Your task to perform on an android device: Search for vegetarian restaurants on Maps Image 0: 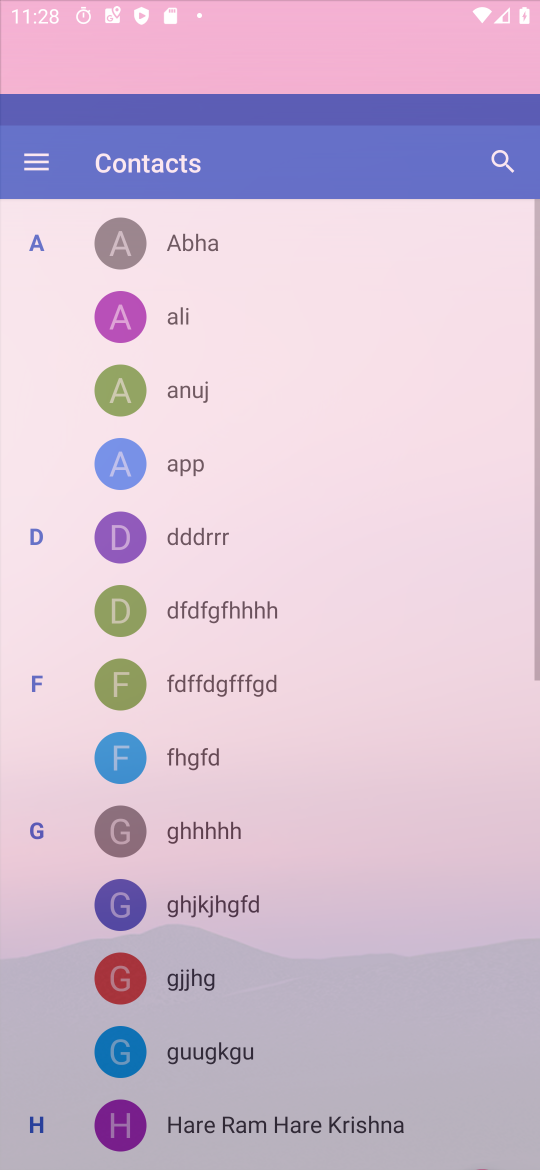
Step 0: click (20, 58)
Your task to perform on an android device: Search for vegetarian restaurants on Maps Image 1: 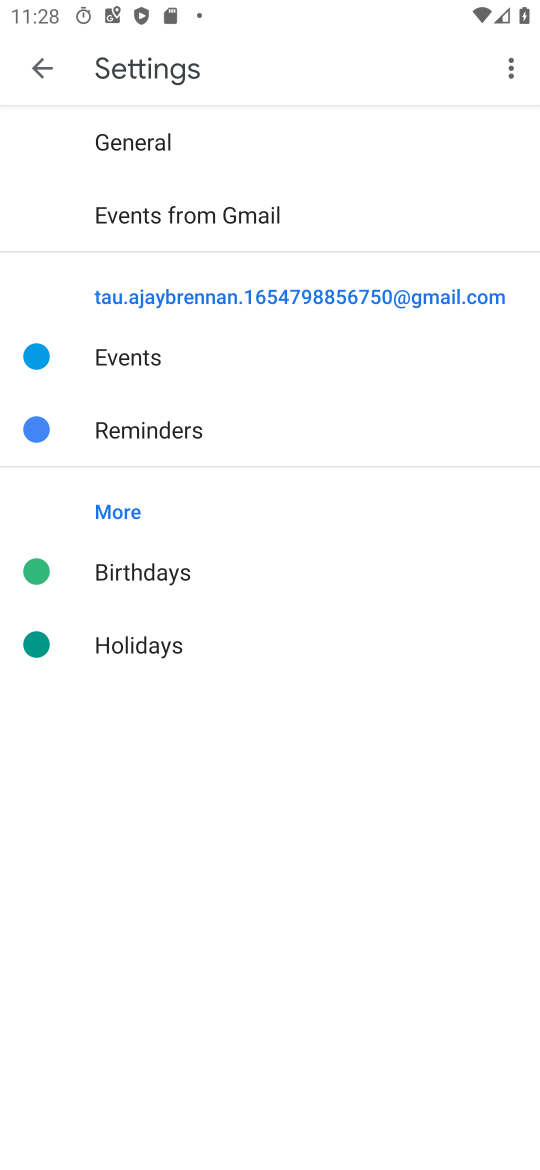
Step 1: press back button
Your task to perform on an android device: Search for vegetarian restaurants on Maps Image 2: 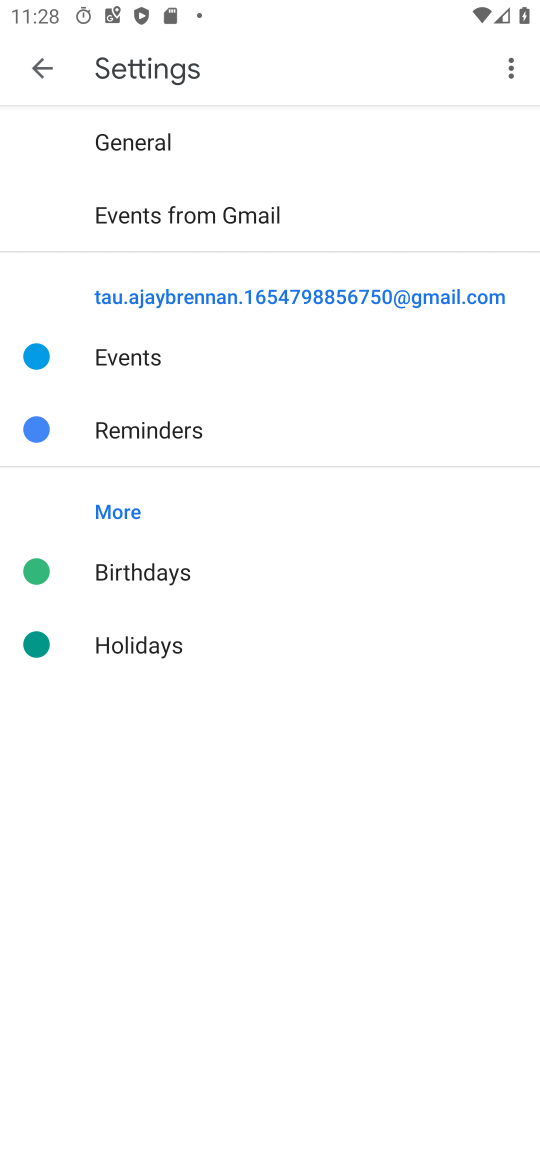
Step 2: press back button
Your task to perform on an android device: Search for vegetarian restaurants on Maps Image 3: 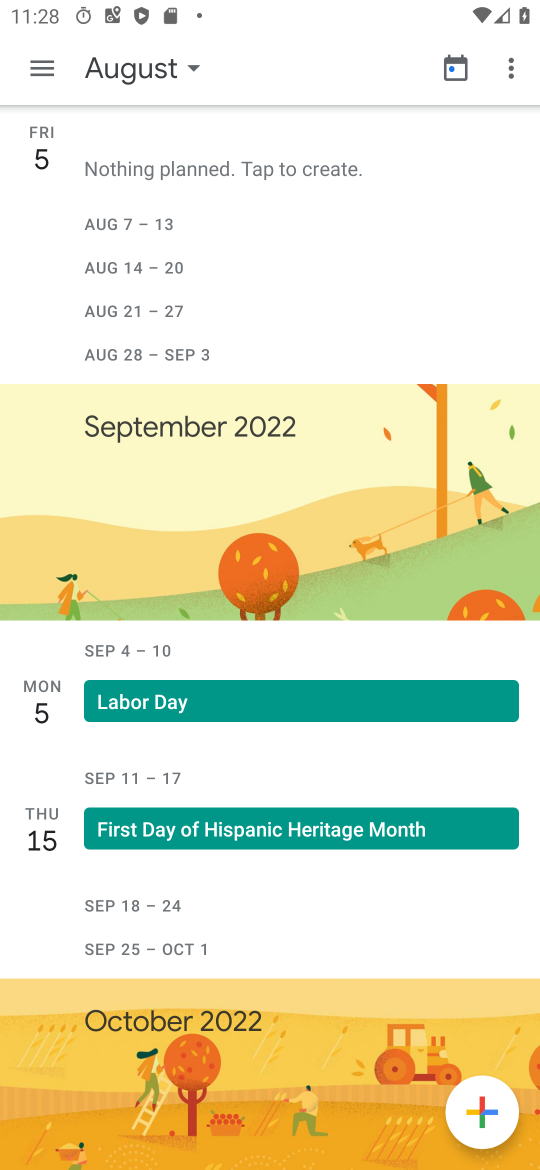
Step 3: press home button
Your task to perform on an android device: Search for vegetarian restaurants on Maps Image 4: 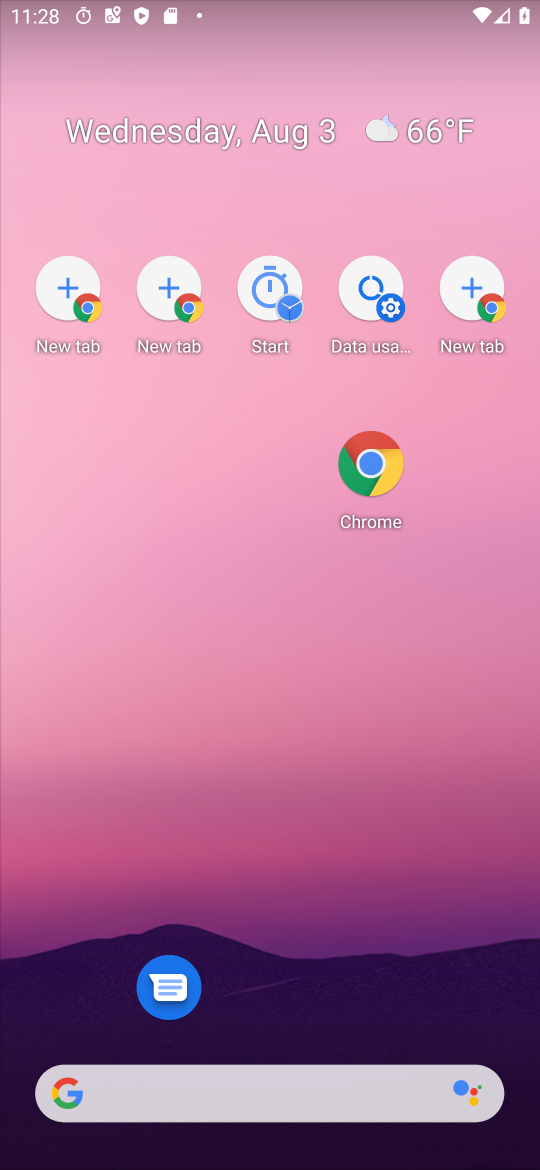
Step 4: drag from (348, 720) to (299, 221)
Your task to perform on an android device: Search for vegetarian restaurants on Maps Image 5: 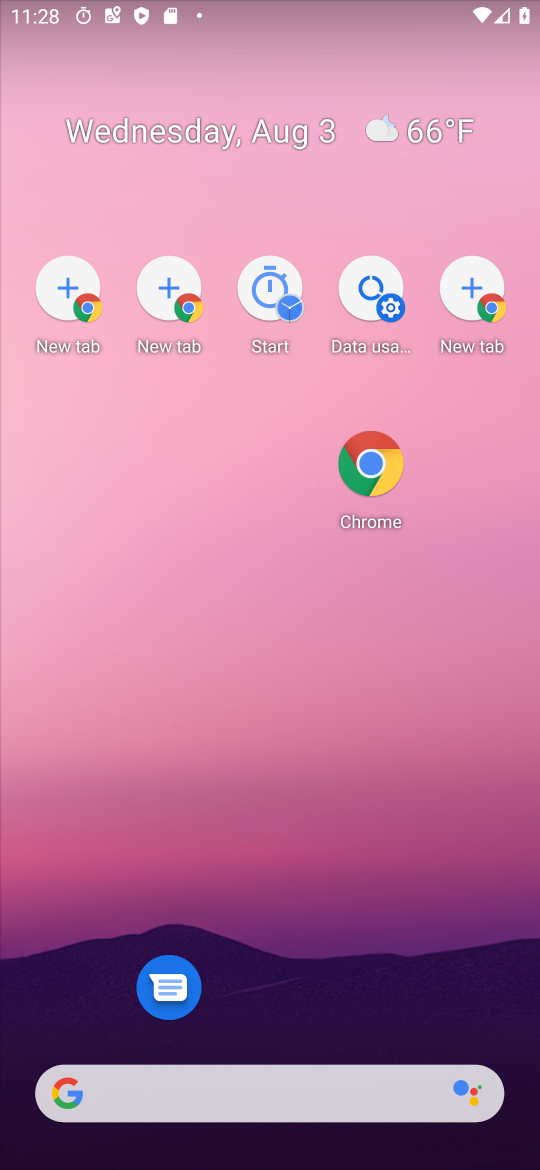
Step 5: drag from (298, 537) to (221, 275)
Your task to perform on an android device: Search for vegetarian restaurants on Maps Image 6: 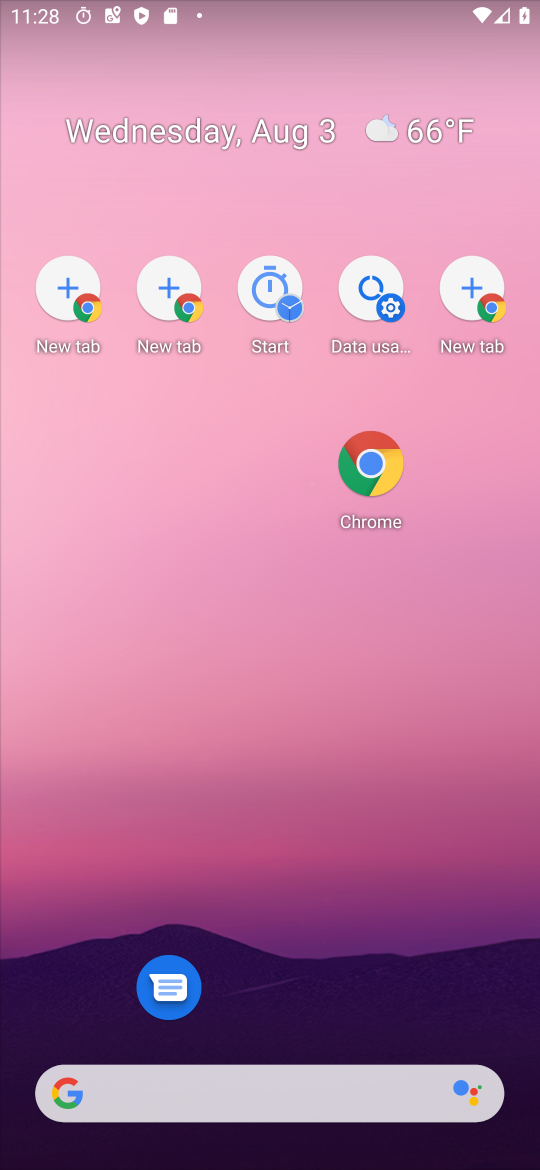
Step 6: drag from (261, 956) to (231, 402)
Your task to perform on an android device: Search for vegetarian restaurants on Maps Image 7: 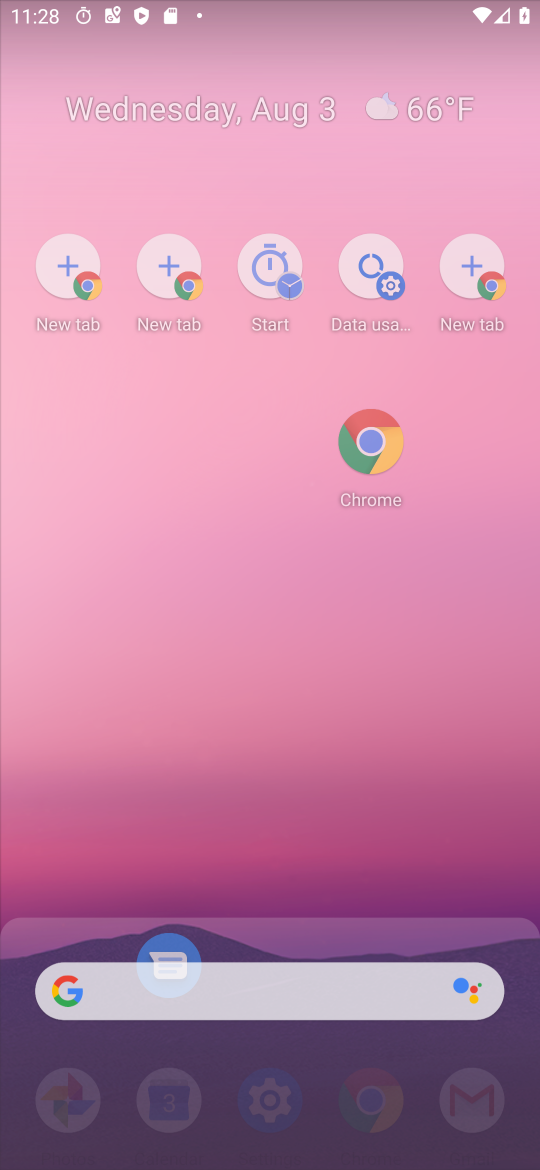
Step 7: drag from (251, 559) to (207, 240)
Your task to perform on an android device: Search for vegetarian restaurants on Maps Image 8: 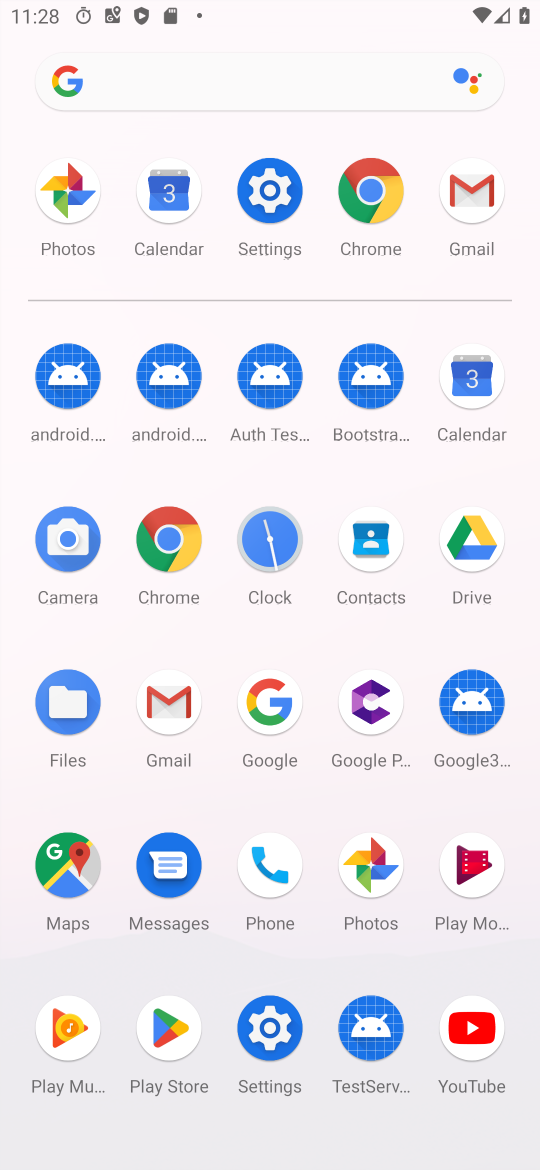
Step 8: click (63, 856)
Your task to perform on an android device: Search for vegetarian restaurants on Maps Image 9: 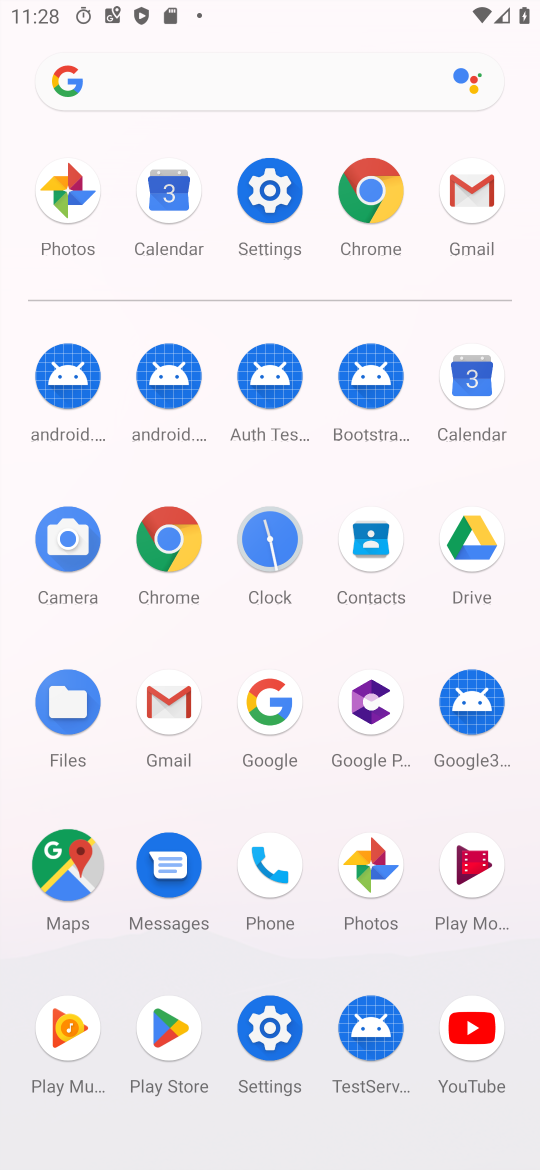
Step 9: click (65, 859)
Your task to perform on an android device: Search for vegetarian restaurants on Maps Image 10: 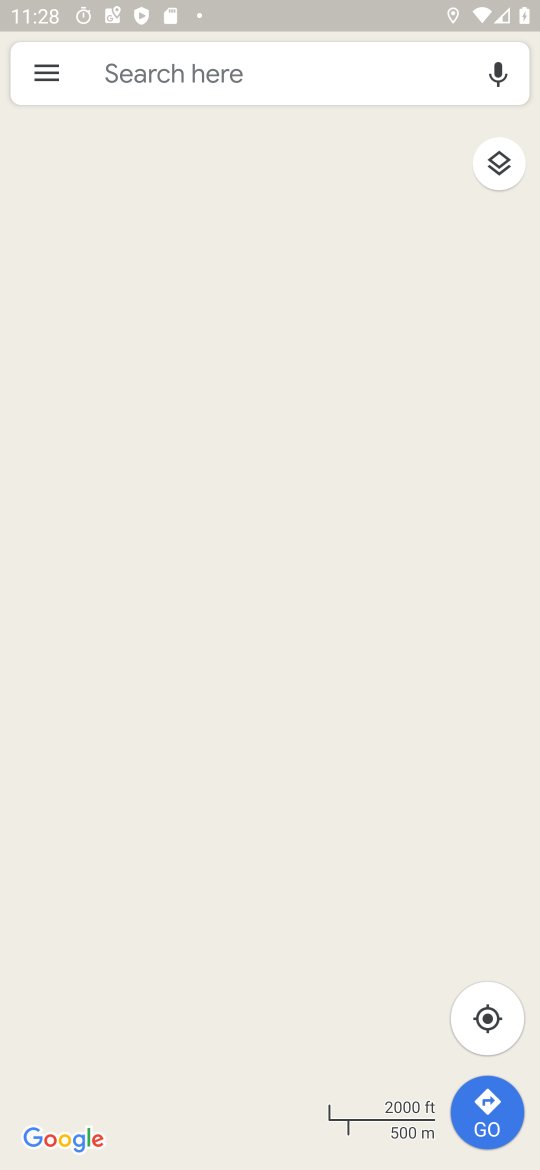
Step 10: click (152, 80)
Your task to perform on an android device: Search for vegetarian restaurants on Maps Image 11: 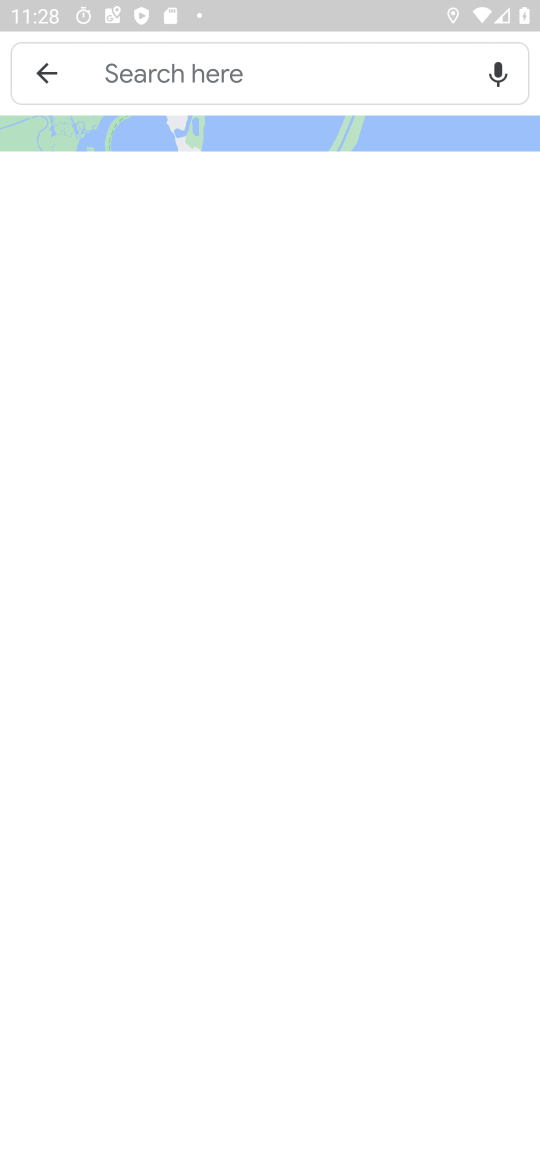
Step 11: click (129, 72)
Your task to perform on an android device: Search for vegetarian restaurants on Maps Image 12: 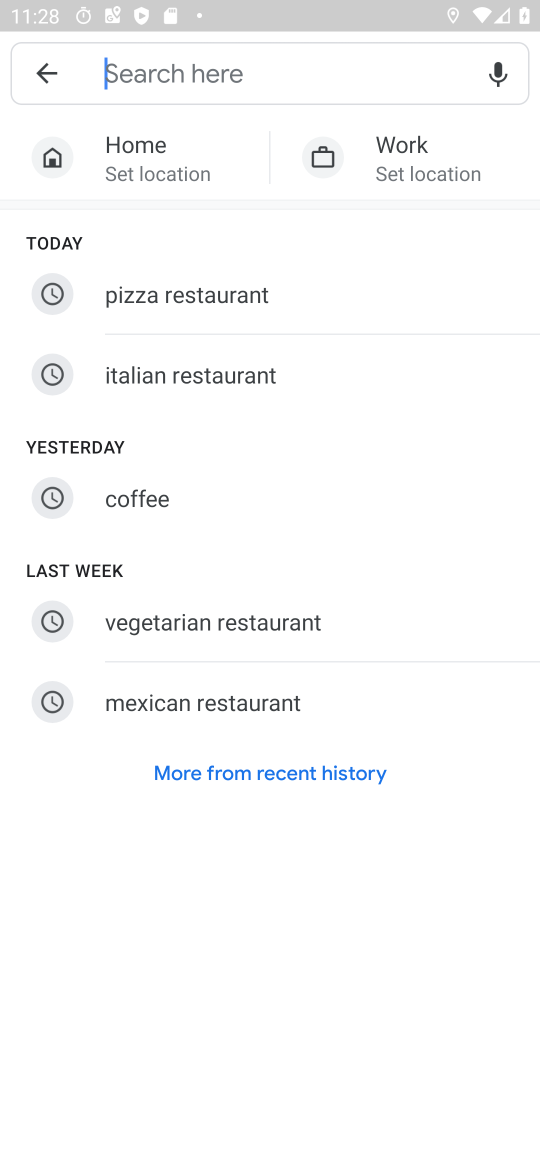
Step 12: click (129, 72)
Your task to perform on an android device: Search for vegetarian restaurants on Maps Image 13: 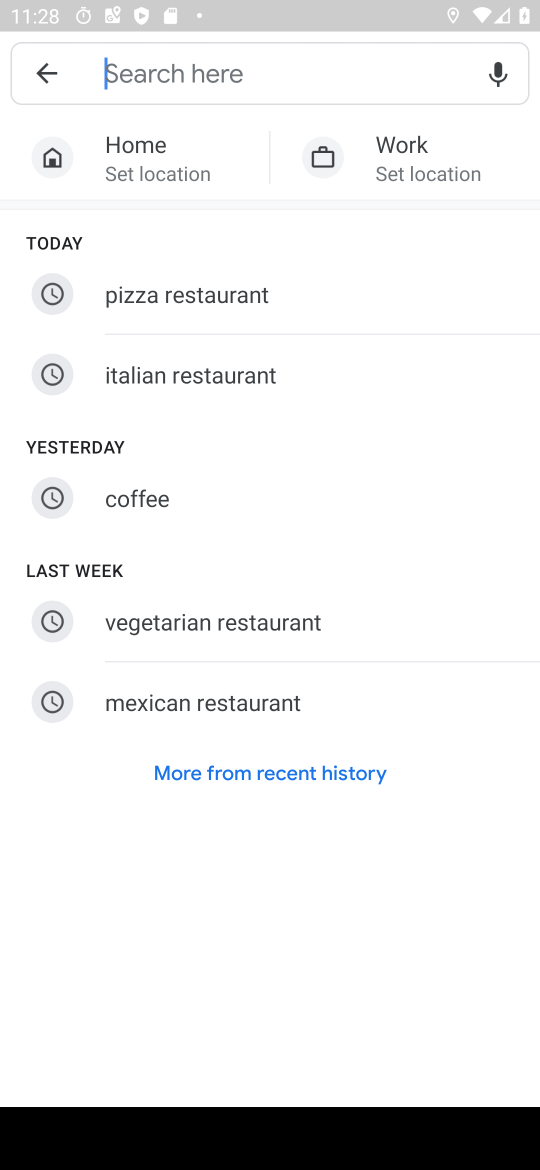
Step 13: click (135, 48)
Your task to perform on an android device: Search for vegetarian restaurants on Maps Image 14: 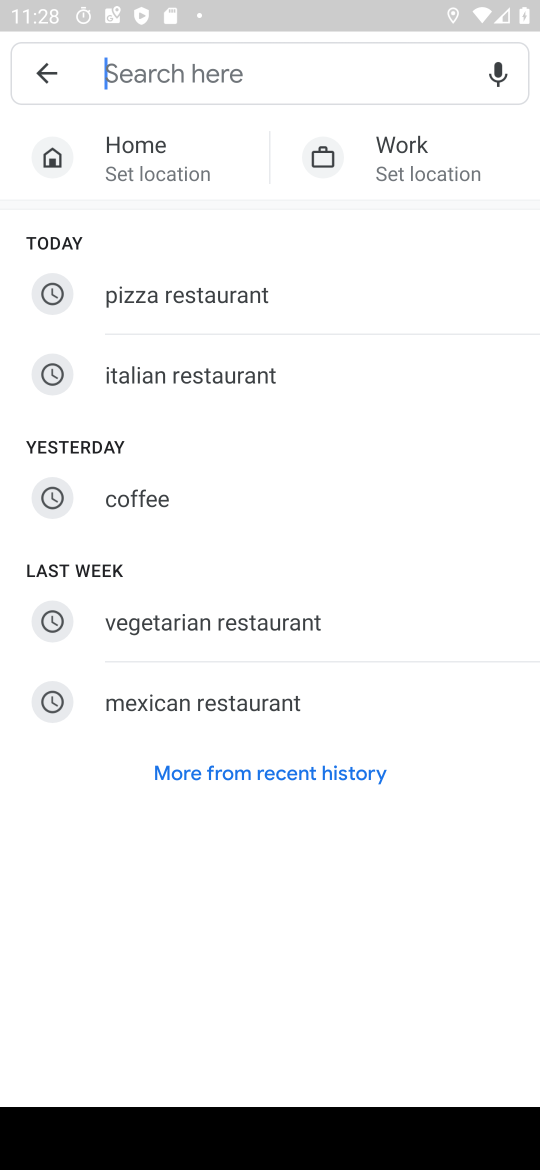
Step 14: click (135, 48)
Your task to perform on an android device: Search for vegetarian restaurants on Maps Image 15: 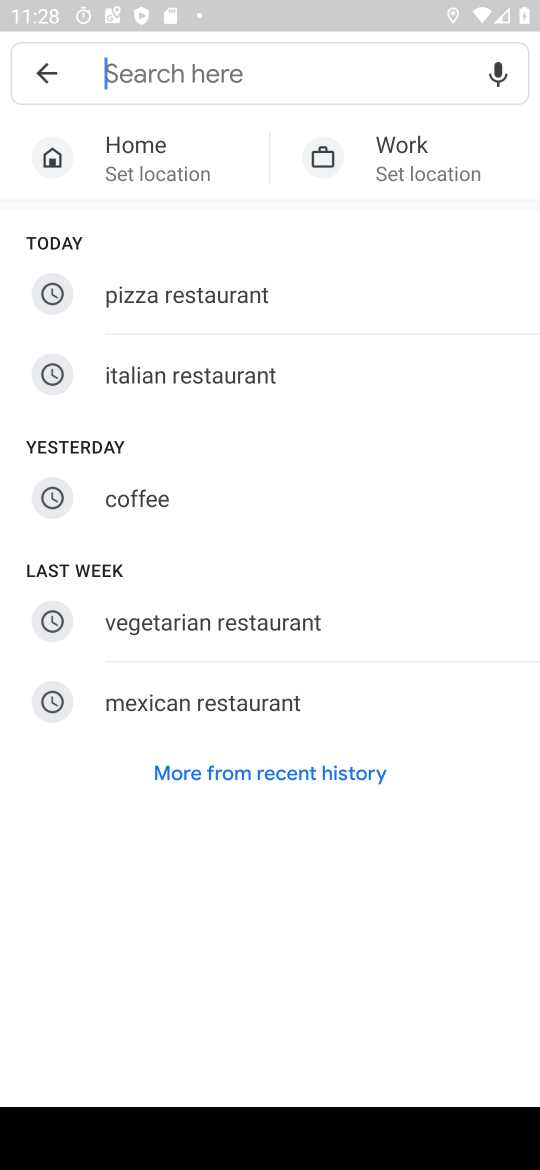
Step 15: click (196, 611)
Your task to perform on an android device: Search for vegetarian restaurants on Maps Image 16: 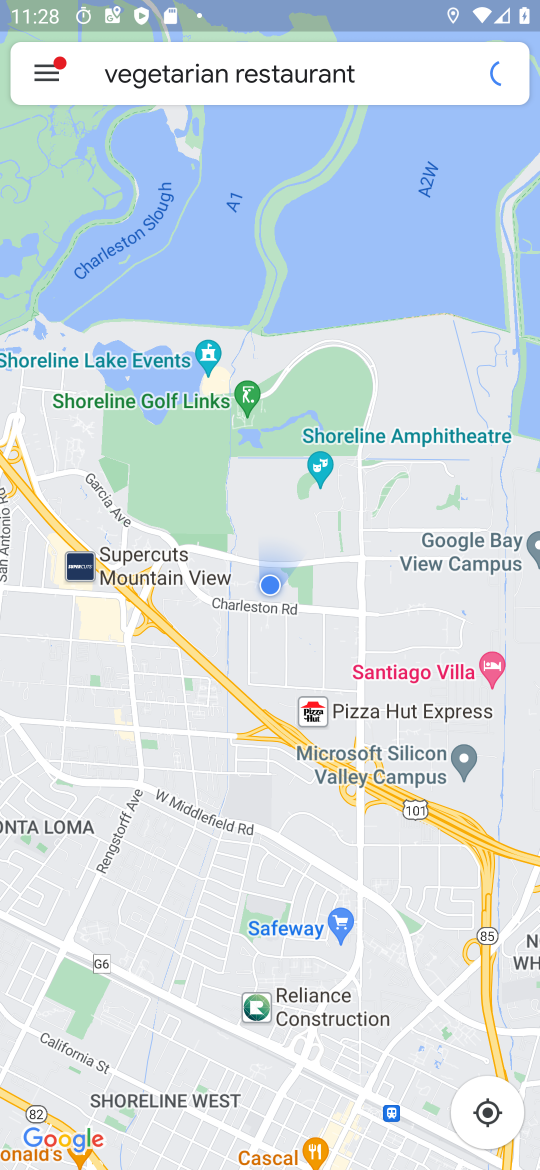
Step 16: task complete